Your task to perform on an android device: turn on location history Image 0: 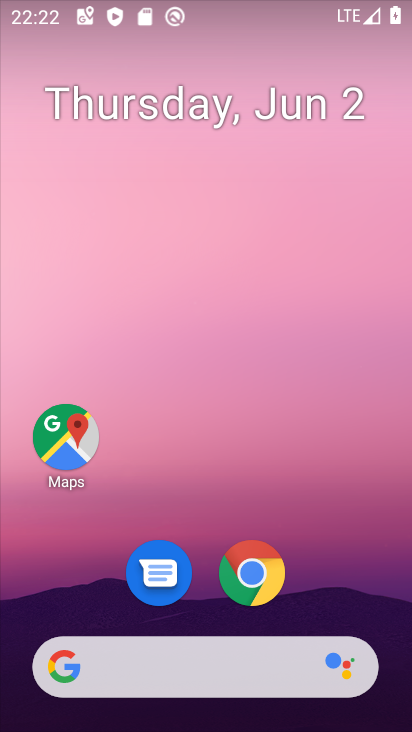
Step 0: drag from (347, 607) to (314, 83)
Your task to perform on an android device: turn on location history Image 1: 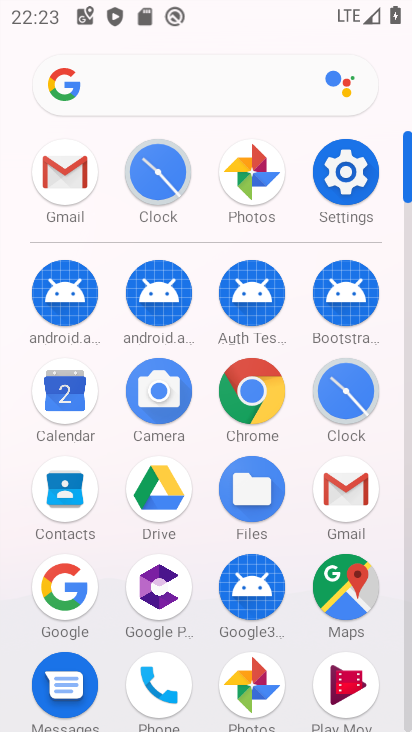
Step 1: click (342, 188)
Your task to perform on an android device: turn on location history Image 2: 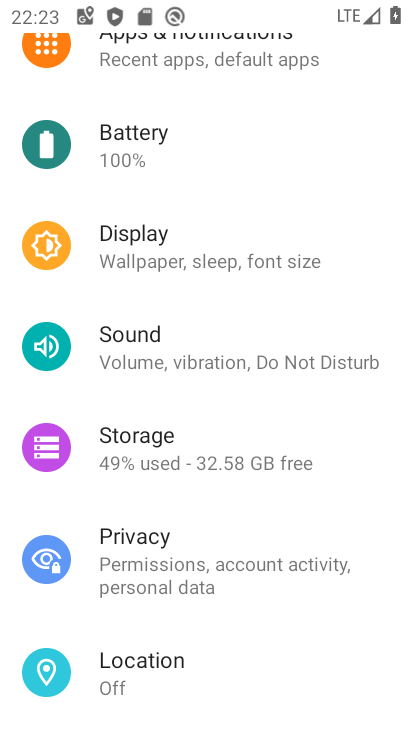
Step 2: click (198, 671)
Your task to perform on an android device: turn on location history Image 3: 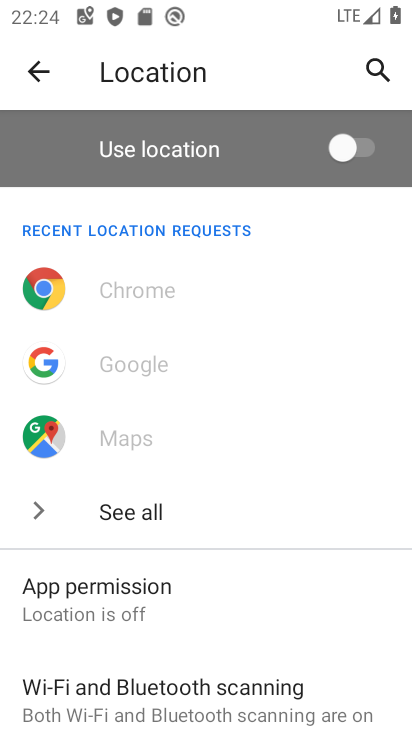
Step 3: drag from (226, 634) to (239, 289)
Your task to perform on an android device: turn on location history Image 4: 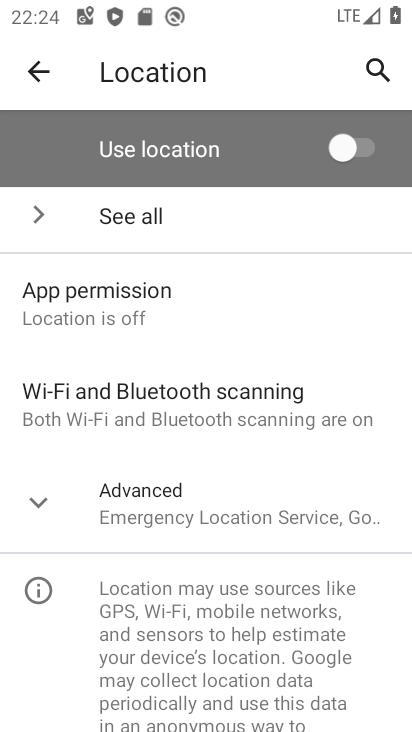
Step 4: click (235, 510)
Your task to perform on an android device: turn on location history Image 5: 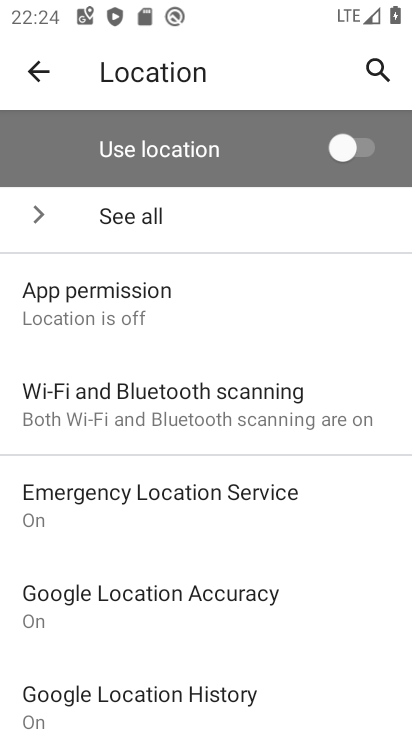
Step 5: drag from (247, 654) to (256, 287)
Your task to perform on an android device: turn on location history Image 6: 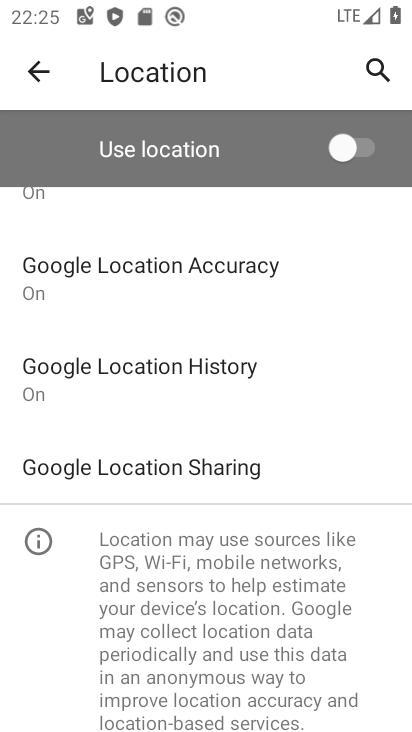
Step 6: click (197, 387)
Your task to perform on an android device: turn on location history Image 7: 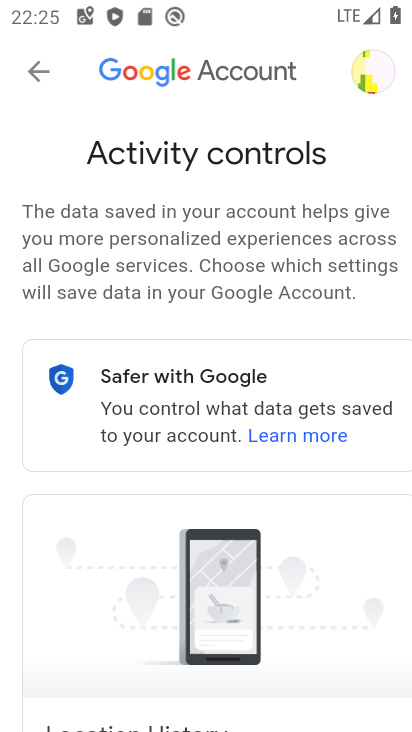
Step 7: drag from (307, 578) to (299, 204)
Your task to perform on an android device: turn on location history Image 8: 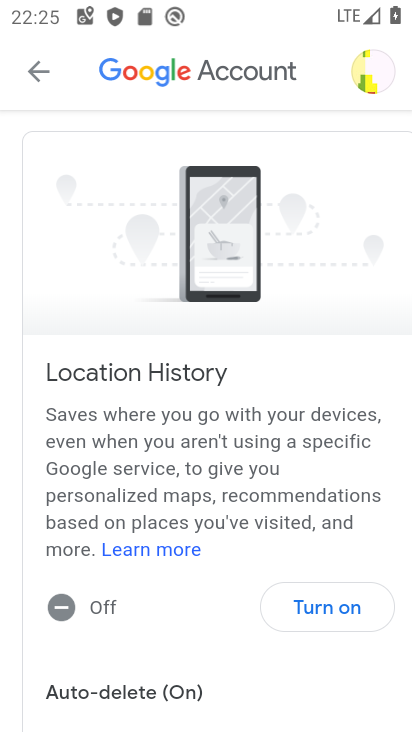
Step 8: click (314, 620)
Your task to perform on an android device: turn on location history Image 9: 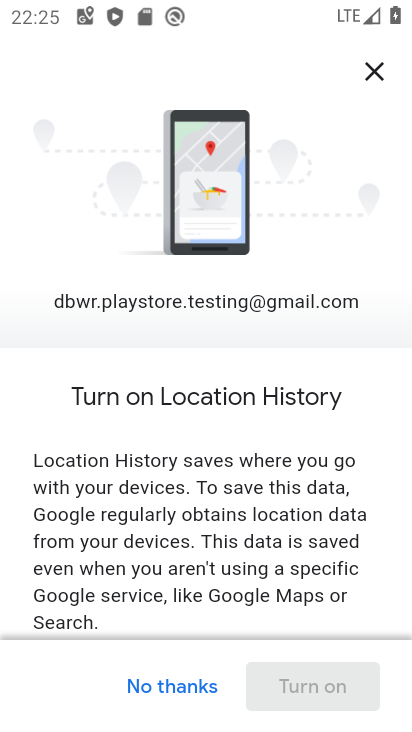
Step 9: drag from (323, 556) to (319, 244)
Your task to perform on an android device: turn on location history Image 10: 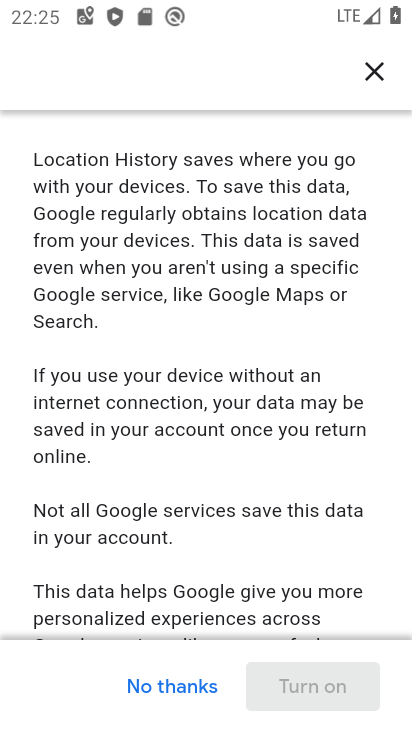
Step 10: drag from (313, 572) to (315, 176)
Your task to perform on an android device: turn on location history Image 11: 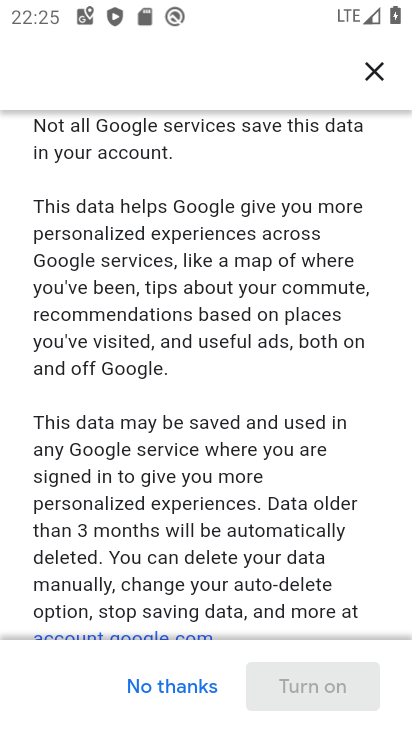
Step 11: drag from (324, 589) to (296, 254)
Your task to perform on an android device: turn on location history Image 12: 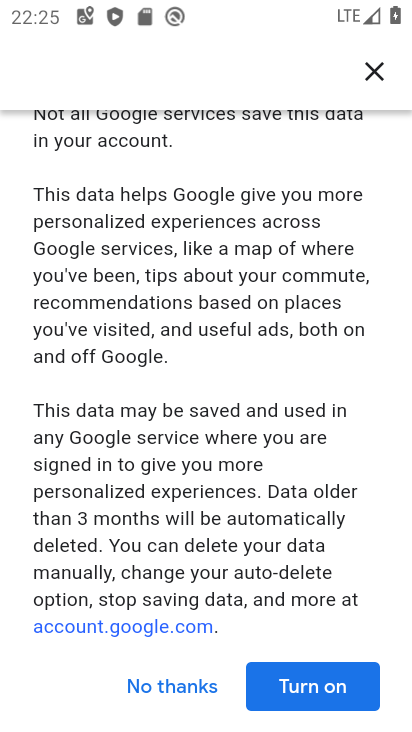
Step 12: click (326, 683)
Your task to perform on an android device: turn on location history Image 13: 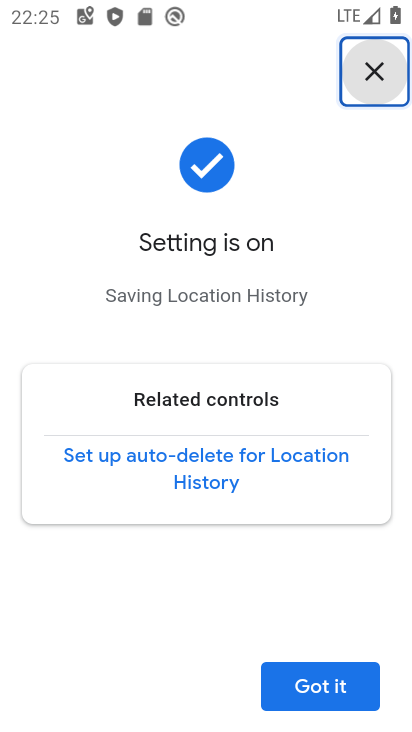
Step 13: click (332, 687)
Your task to perform on an android device: turn on location history Image 14: 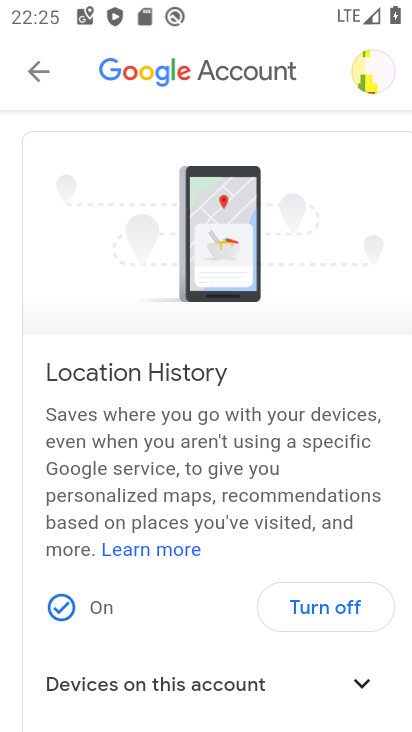
Step 14: task complete